Your task to perform on an android device: Open accessibility settings Image 0: 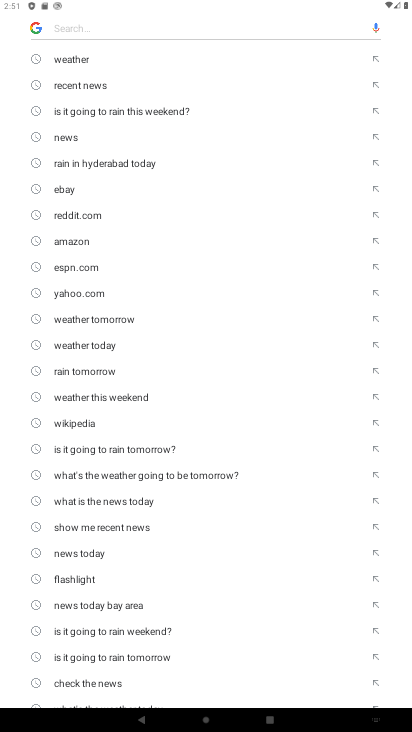
Step 0: press home button
Your task to perform on an android device: Open accessibility settings Image 1: 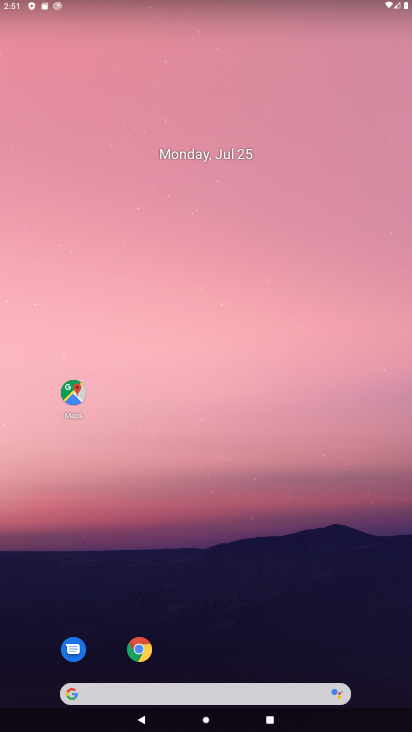
Step 1: drag from (183, 714) to (246, 150)
Your task to perform on an android device: Open accessibility settings Image 2: 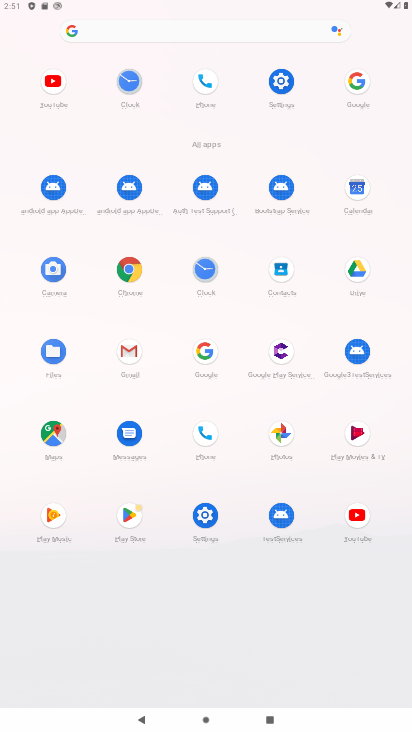
Step 2: click (284, 80)
Your task to perform on an android device: Open accessibility settings Image 3: 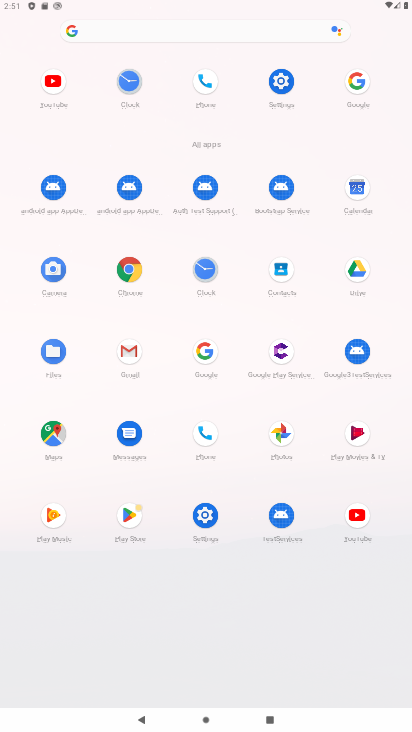
Step 3: click (284, 80)
Your task to perform on an android device: Open accessibility settings Image 4: 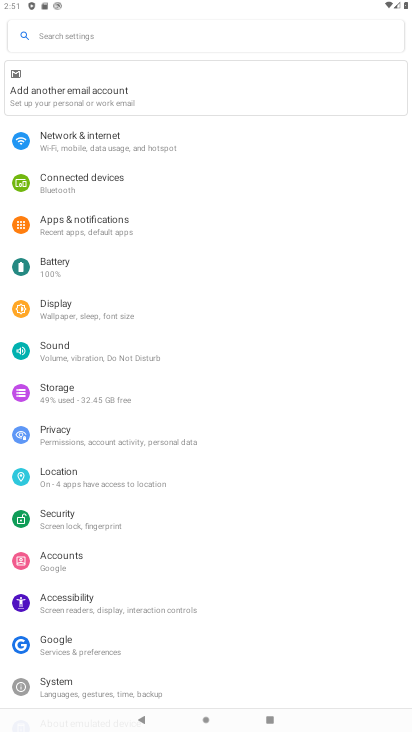
Step 4: click (114, 603)
Your task to perform on an android device: Open accessibility settings Image 5: 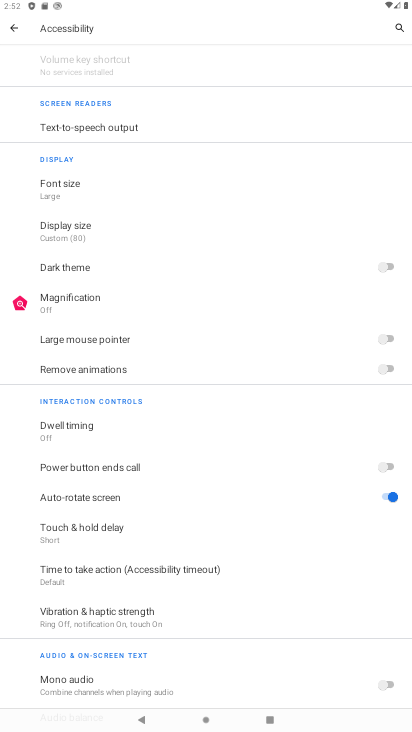
Step 5: task complete